Your task to perform on an android device: change notifications settings Image 0: 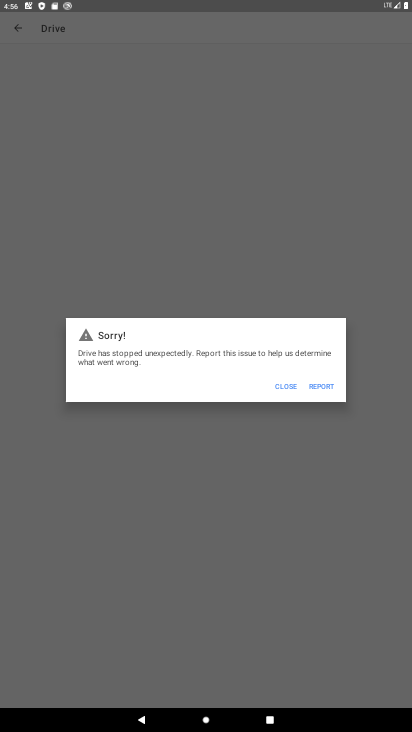
Step 0: drag from (299, 3) to (353, 453)
Your task to perform on an android device: change notifications settings Image 1: 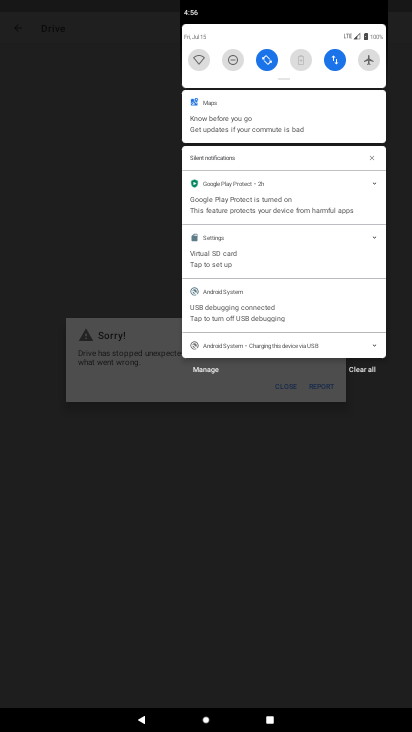
Step 1: press home button
Your task to perform on an android device: change notifications settings Image 2: 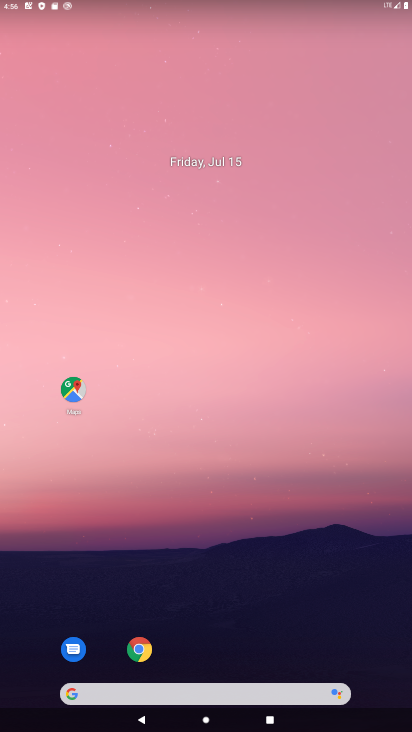
Step 2: drag from (289, 611) to (302, 131)
Your task to perform on an android device: change notifications settings Image 3: 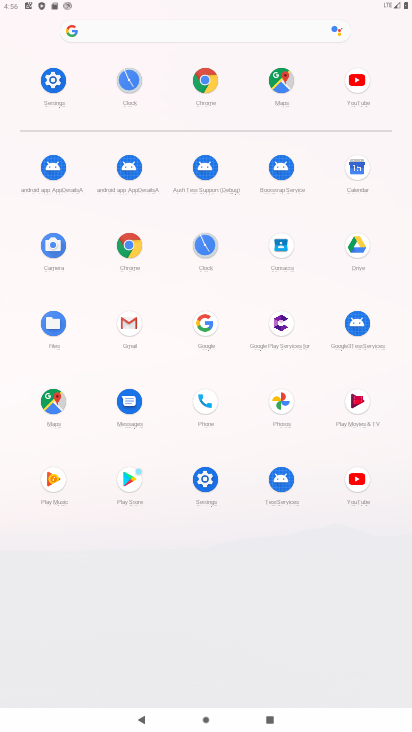
Step 3: click (54, 82)
Your task to perform on an android device: change notifications settings Image 4: 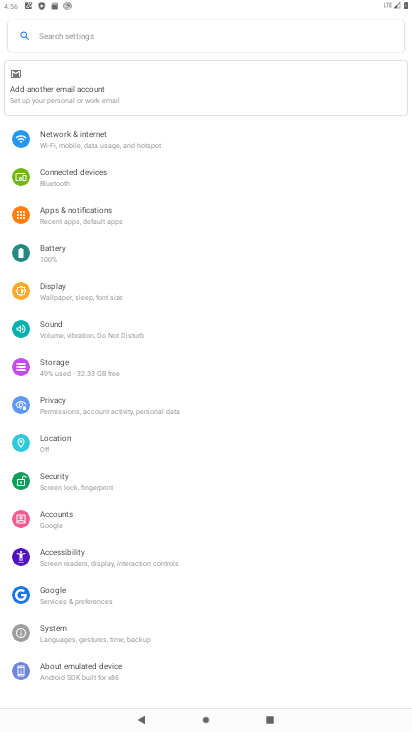
Step 4: click (99, 219)
Your task to perform on an android device: change notifications settings Image 5: 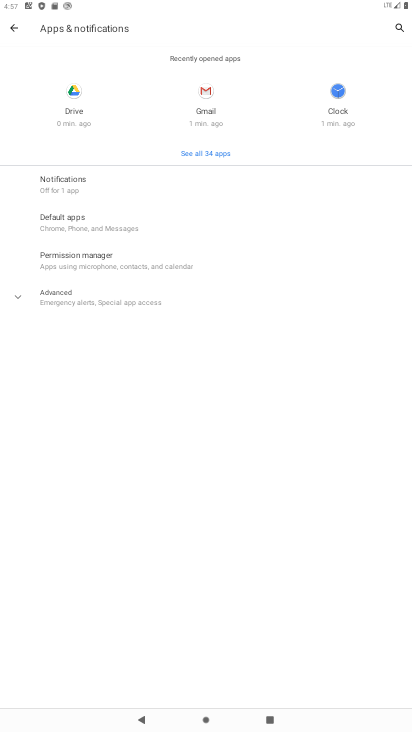
Step 5: click (73, 191)
Your task to perform on an android device: change notifications settings Image 6: 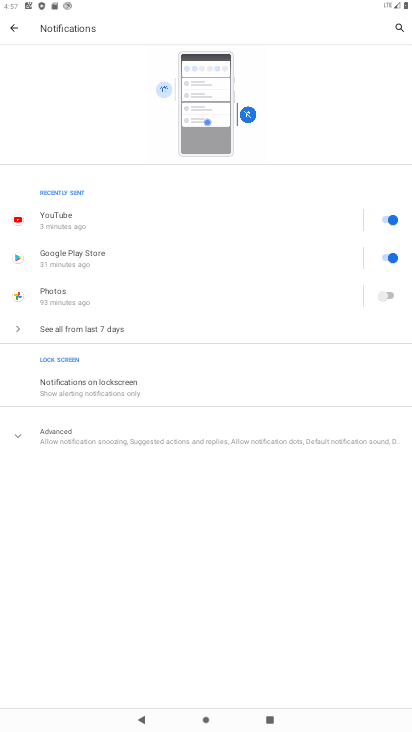
Step 6: click (121, 424)
Your task to perform on an android device: change notifications settings Image 7: 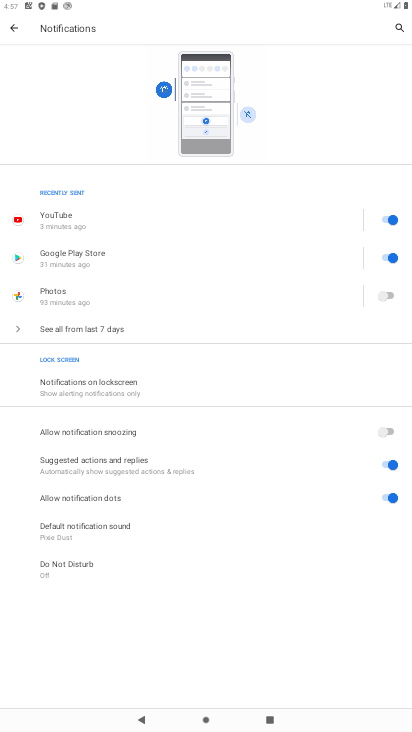
Step 7: click (373, 427)
Your task to perform on an android device: change notifications settings Image 8: 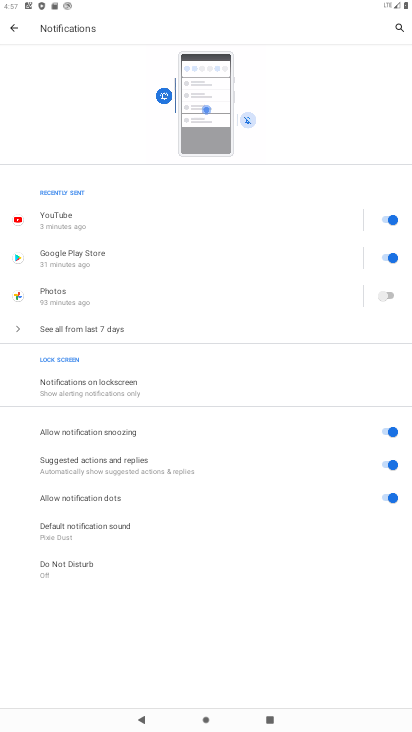
Step 8: task complete